Your task to perform on an android device: turn smart compose on in the gmail app Image 0: 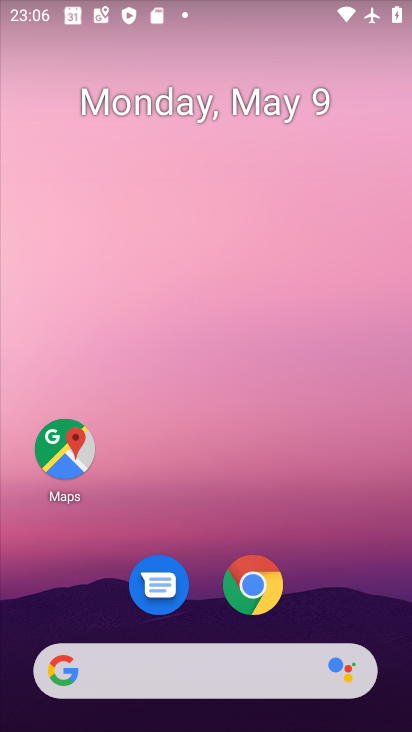
Step 0: drag from (321, 556) to (319, 1)
Your task to perform on an android device: turn smart compose on in the gmail app Image 1: 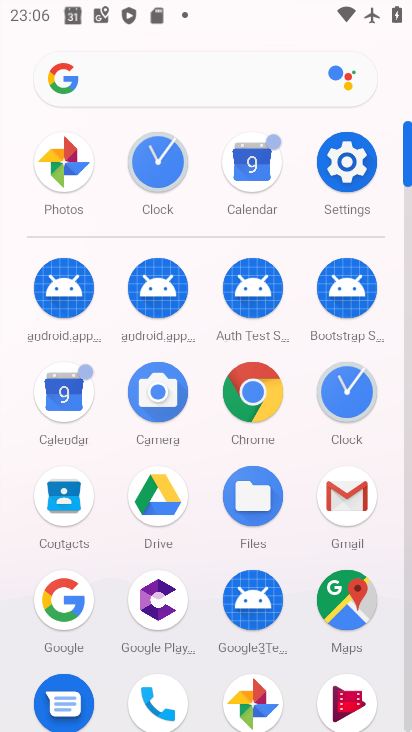
Step 1: click (333, 497)
Your task to perform on an android device: turn smart compose on in the gmail app Image 2: 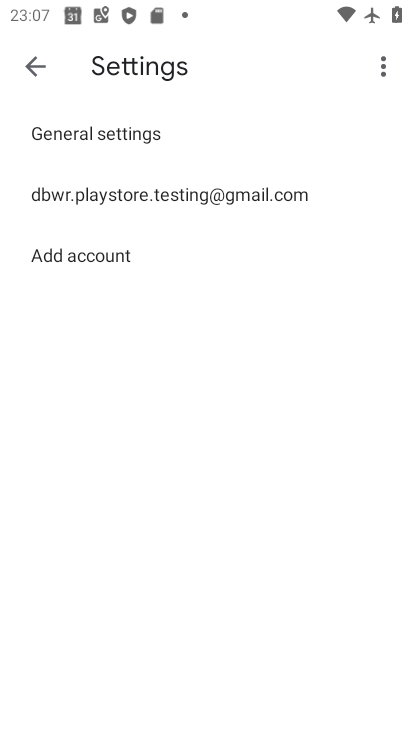
Step 2: click (228, 195)
Your task to perform on an android device: turn smart compose on in the gmail app Image 3: 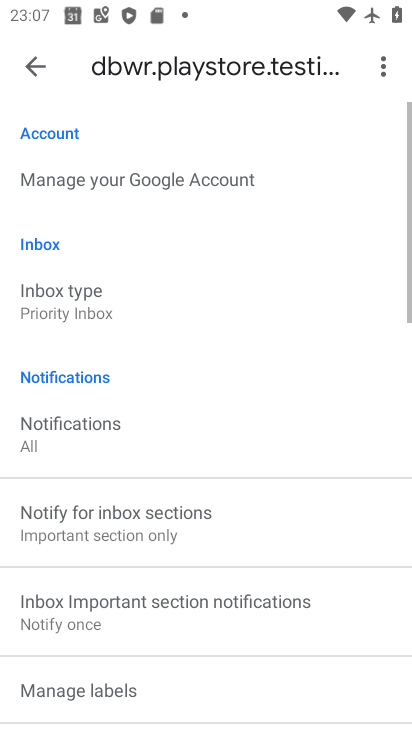
Step 3: task complete